Your task to perform on an android device: Check the weather Image 0: 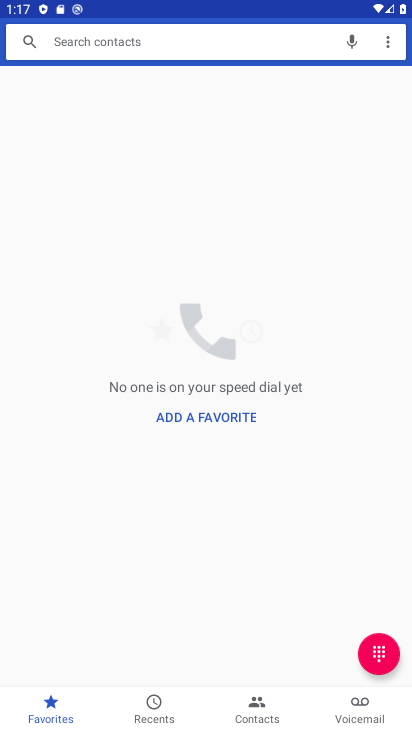
Step 0: press home button
Your task to perform on an android device: Check the weather Image 1: 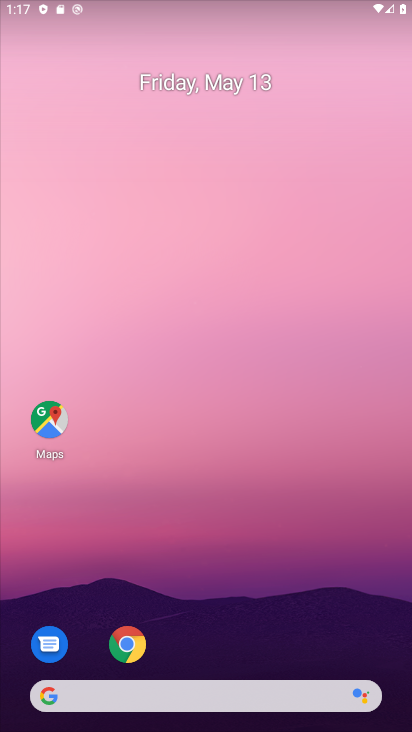
Step 1: drag from (277, 572) to (262, 66)
Your task to perform on an android device: Check the weather Image 2: 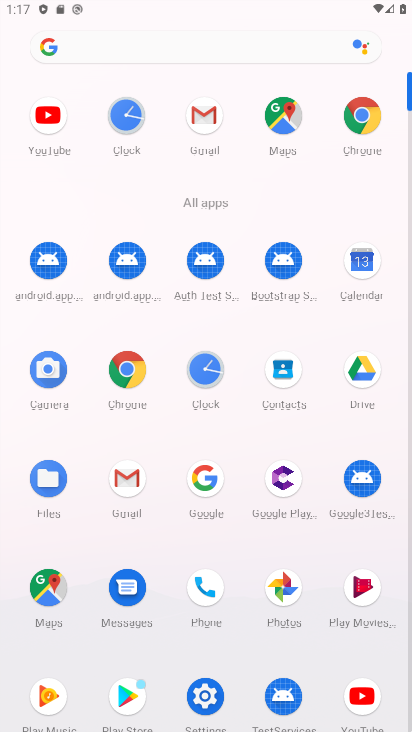
Step 2: click (114, 378)
Your task to perform on an android device: Check the weather Image 3: 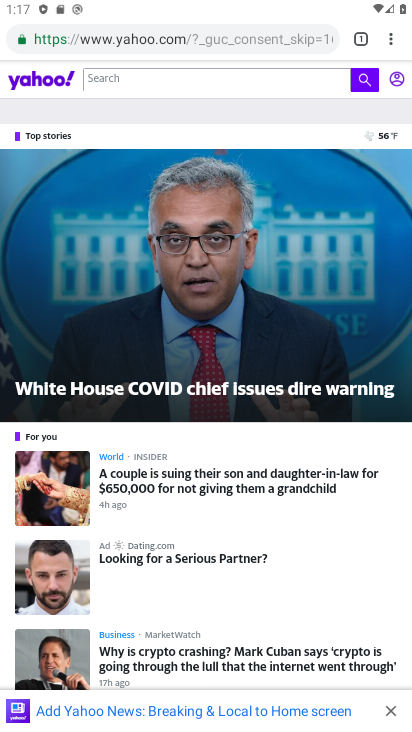
Step 3: click (169, 38)
Your task to perform on an android device: Check the weather Image 4: 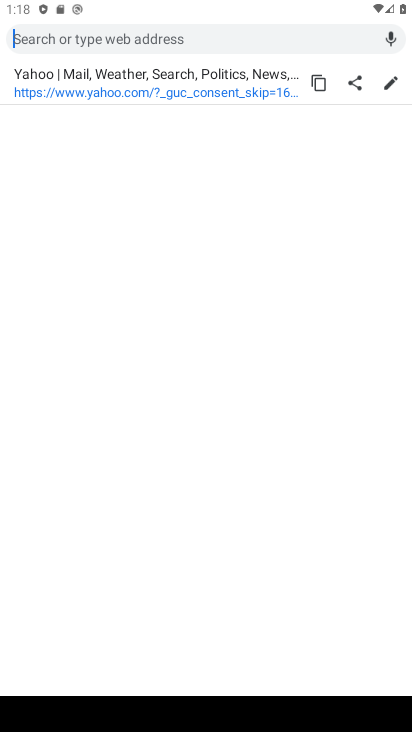
Step 4: type "weather"
Your task to perform on an android device: Check the weather Image 5: 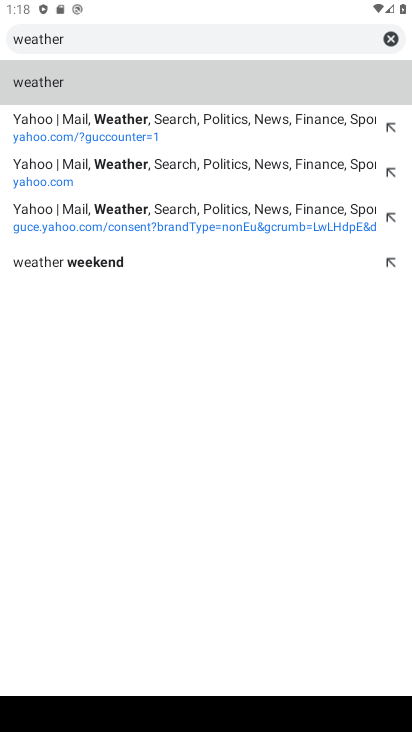
Step 5: click (39, 79)
Your task to perform on an android device: Check the weather Image 6: 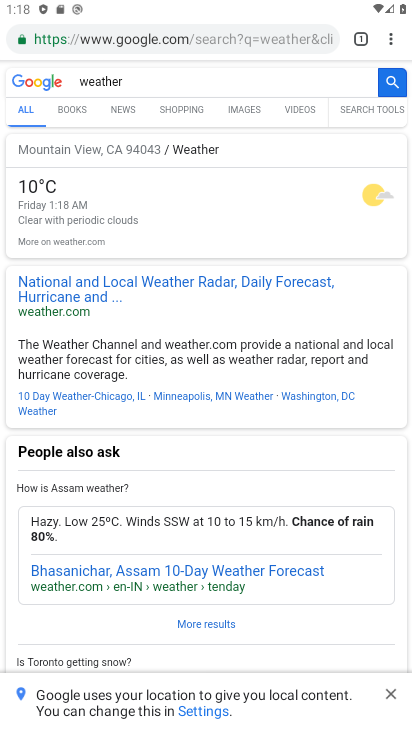
Step 6: task complete